Your task to perform on an android device: add a label to a message in the gmail app Image 0: 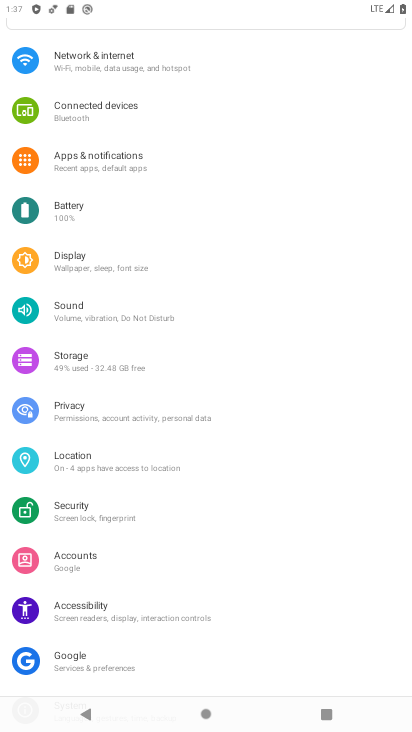
Step 0: drag from (257, 613) to (250, 289)
Your task to perform on an android device: add a label to a message in the gmail app Image 1: 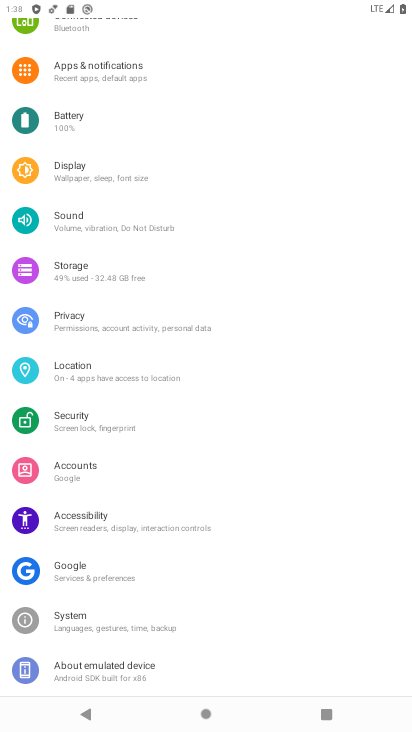
Step 1: task complete